Your task to perform on an android device: Open ESPN.com Image 0: 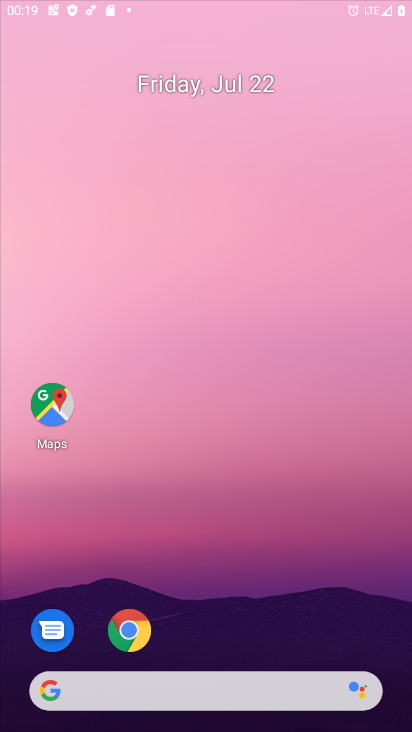
Step 0: click (276, 25)
Your task to perform on an android device: Open ESPN.com Image 1: 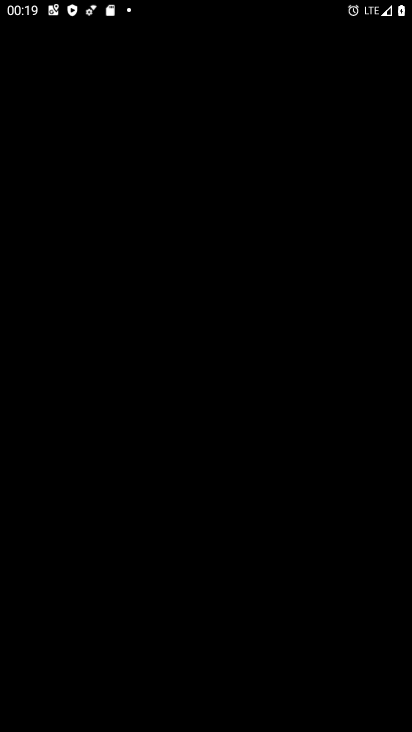
Step 1: press home button
Your task to perform on an android device: Open ESPN.com Image 2: 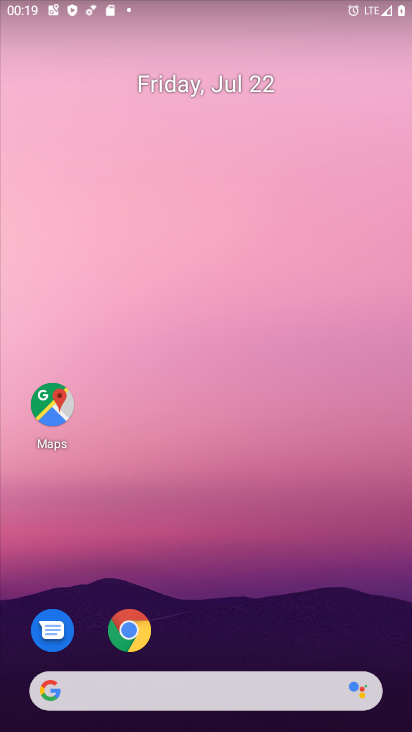
Step 2: drag from (237, 644) to (177, 545)
Your task to perform on an android device: Open ESPN.com Image 3: 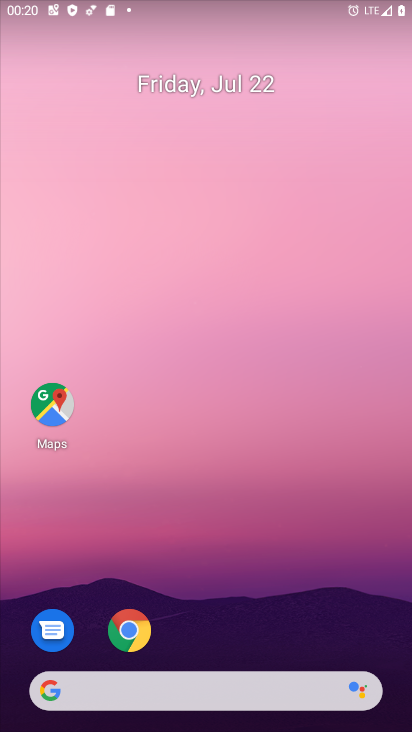
Step 3: click (133, 619)
Your task to perform on an android device: Open ESPN.com Image 4: 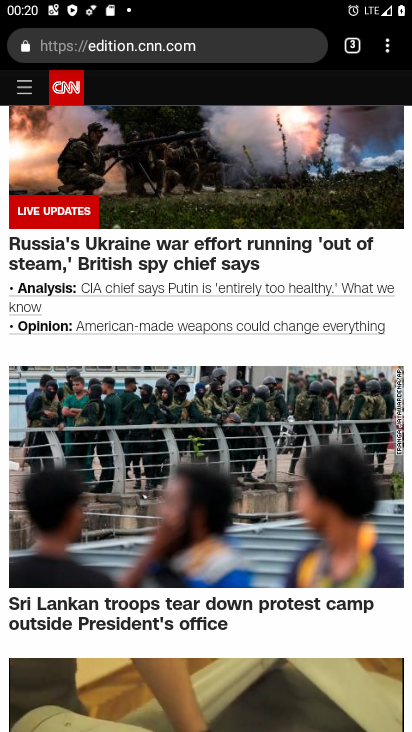
Step 4: click (355, 41)
Your task to perform on an android device: Open ESPN.com Image 5: 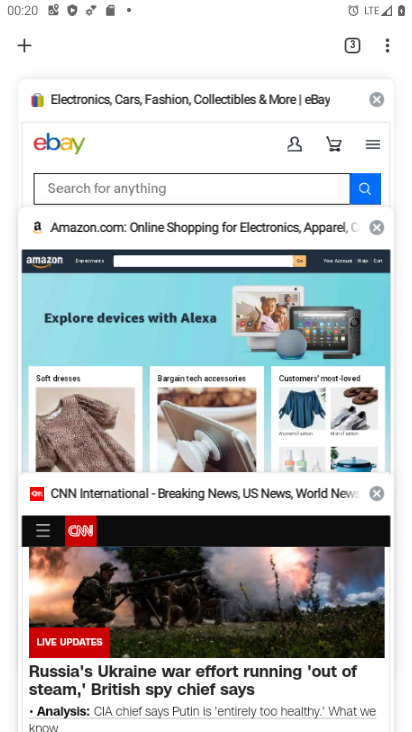
Step 5: click (20, 42)
Your task to perform on an android device: Open ESPN.com Image 6: 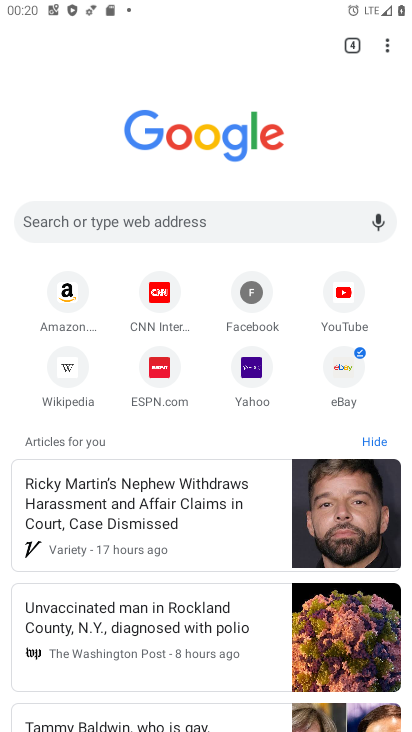
Step 6: click (169, 387)
Your task to perform on an android device: Open ESPN.com Image 7: 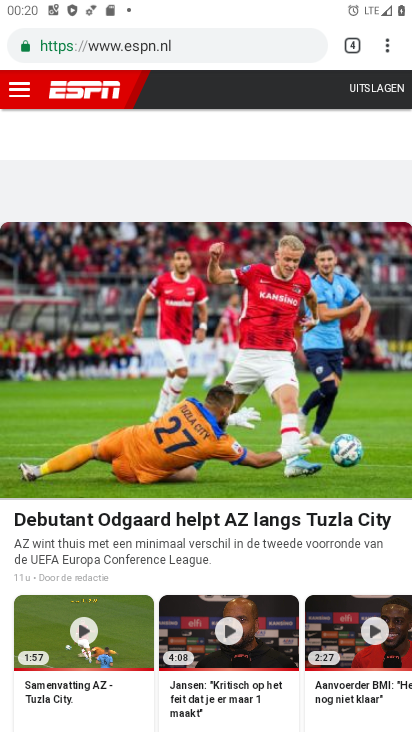
Step 7: drag from (127, 644) to (132, 238)
Your task to perform on an android device: Open ESPN.com Image 8: 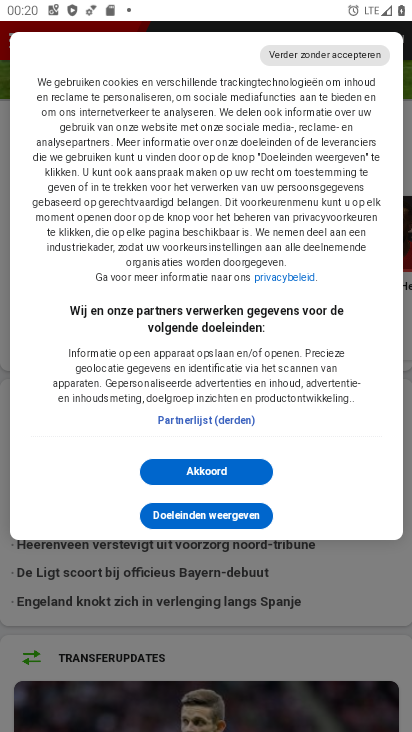
Step 8: click (383, 605)
Your task to perform on an android device: Open ESPN.com Image 9: 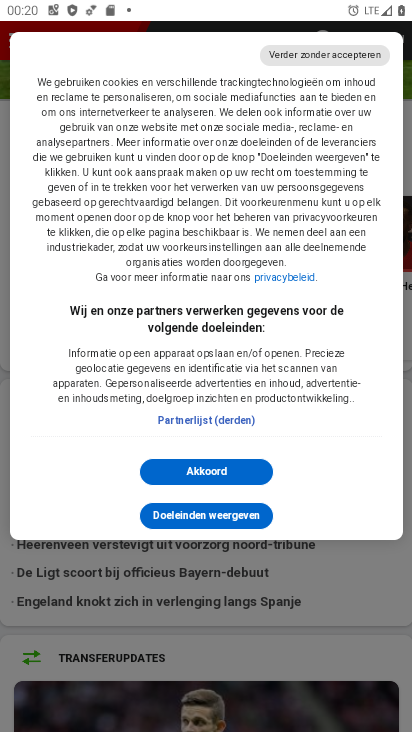
Step 9: task complete